Your task to perform on an android device: Do I have any events today? Image 0: 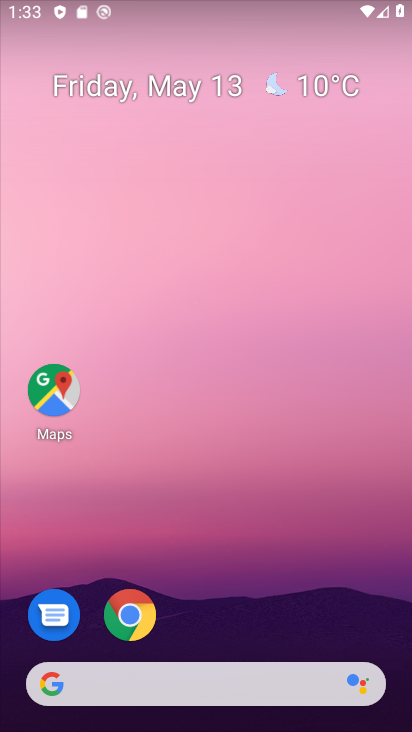
Step 0: drag from (220, 599) to (167, 300)
Your task to perform on an android device: Do I have any events today? Image 1: 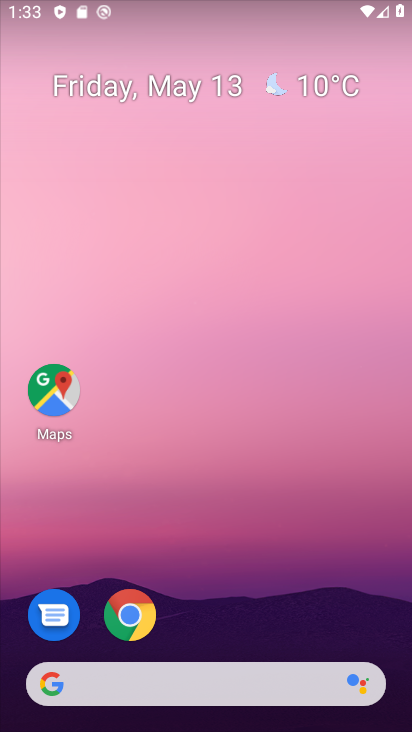
Step 1: drag from (216, 639) to (90, 77)
Your task to perform on an android device: Do I have any events today? Image 2: 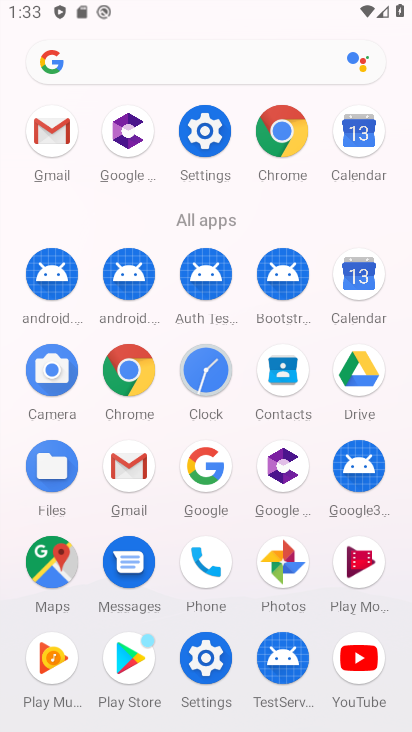
Step 2: click (363, 151)
Your task to perform on an android device: Do I have any events today? Image 3: 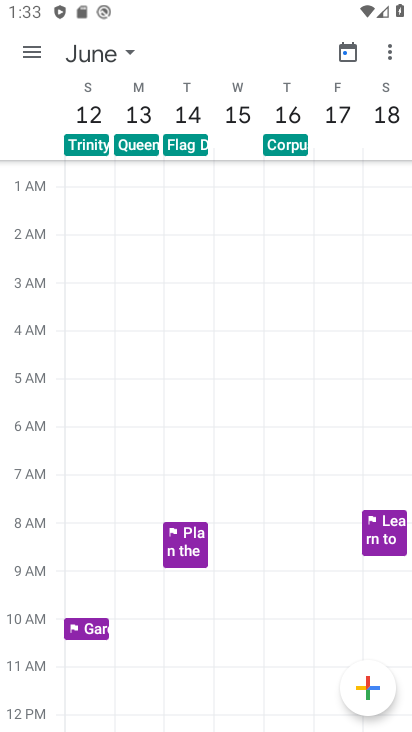
Step 3: click (96, 57)
Your task to perform on an android device: Do I have any events today? Image 4: 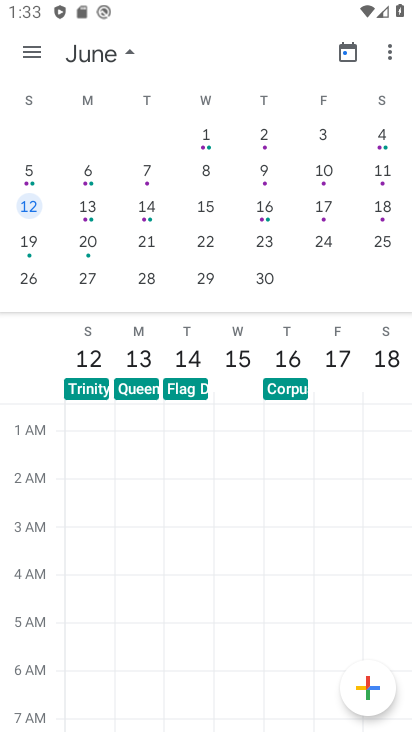
Step 4: drag from (33, 204) to (366, 208)
Your task to perform on an android device: Do I have any events today? Image 5: 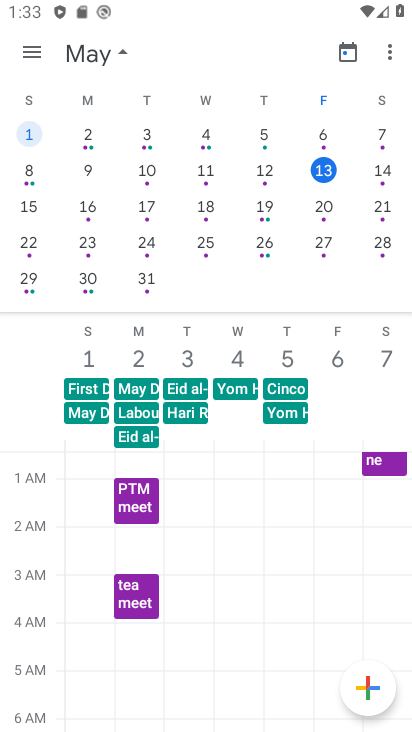
Step 5: click (329, 163)
Your task to perform on an android device: Do I have any events today? Image 6: 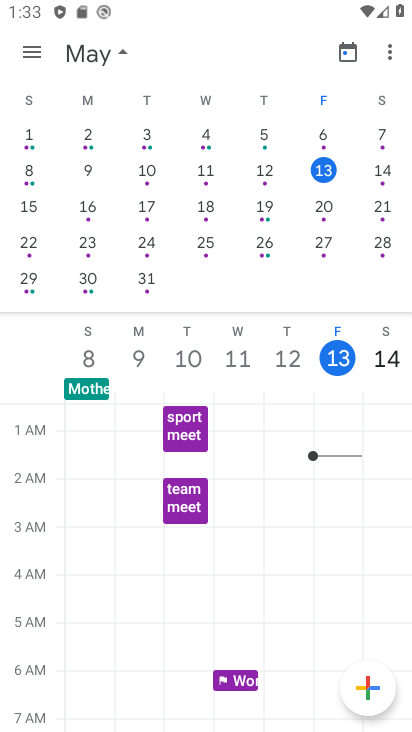
Step 6: click (26, 56)
Your task to perform on an android device: Do I have any events today? Image 7: 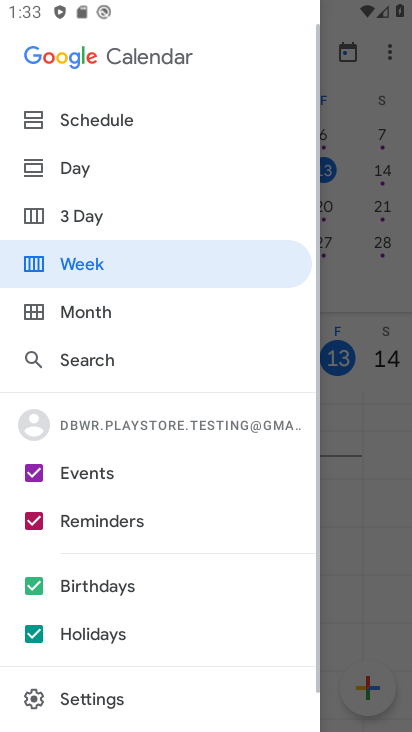
Step 7: click (72, 117)
Your task to perform on an android device: Do I have any events today? Image 8: 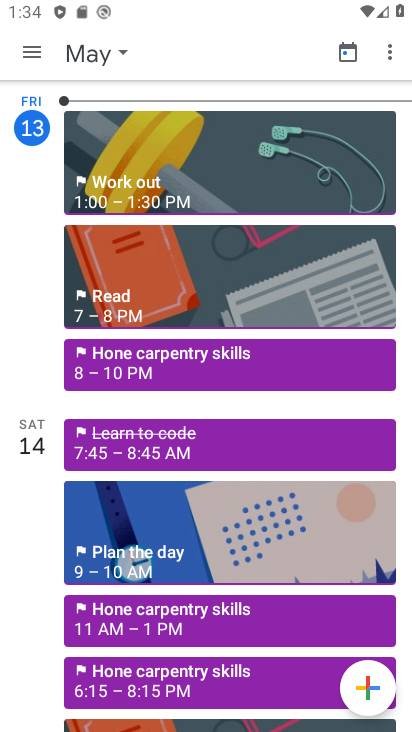
Step 8: task complete